Your task to perform on an android device: Open CNN.com Image 0: 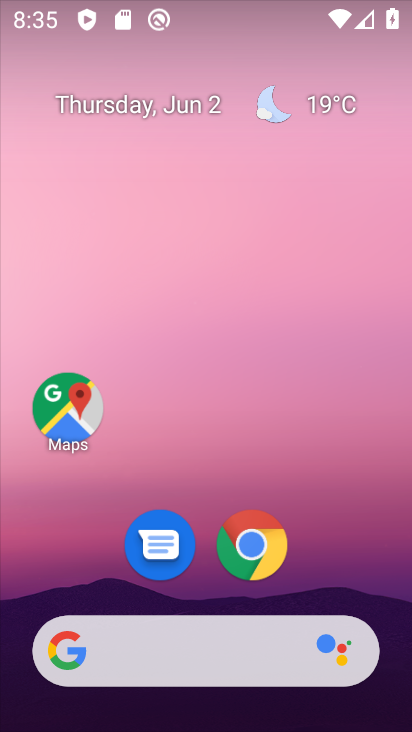
Step 0: click (255, 530)
Your task to perform on an android device: Open CNN.com Image 1: 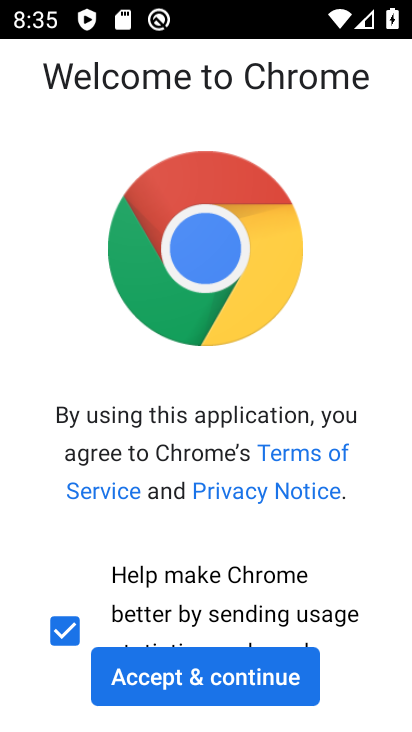
Step 1: click (259, 663)
Your task to perform on an android device: Open CNN.com Image 2: 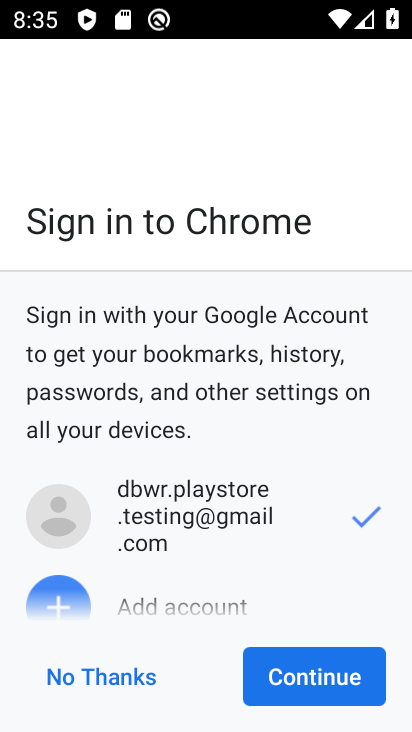
Step 2: click (284, 710)
Your task to perform on an android device: Open CNN.com Image 3: 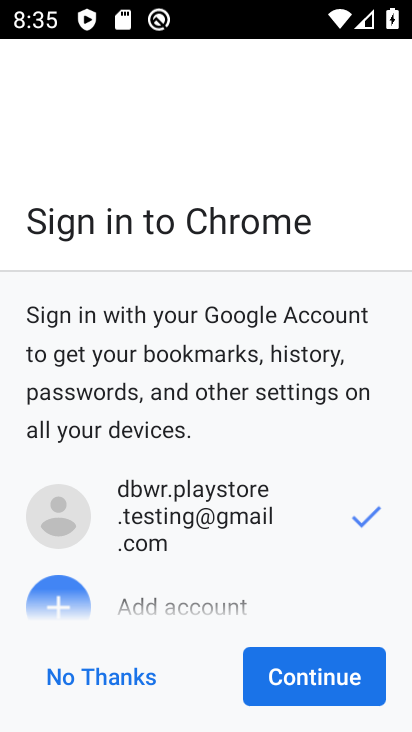
Step 3: click (304, 688)
Your task to perform on an android device: Open CNN.com Image 4: 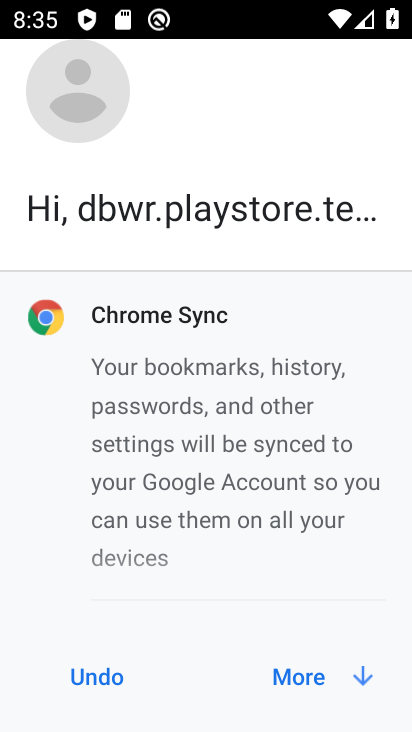
Step 4: click (304, 676)
Your task to perform on an android device: Open CNN.com Image 5: 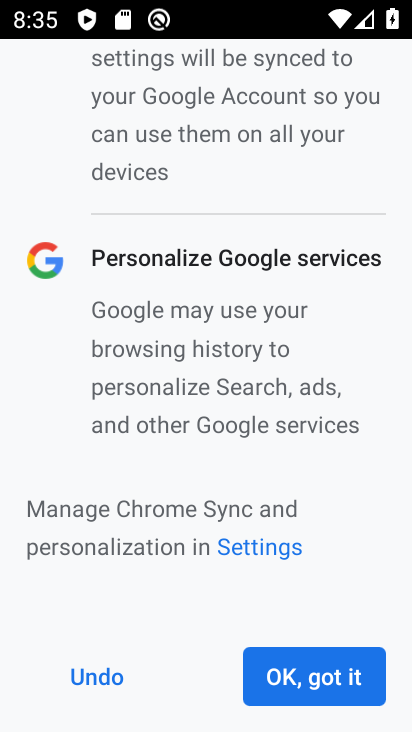
Step 5: click (283, 684)
Your task to perform on an android device: Open CNN.com Image 6: 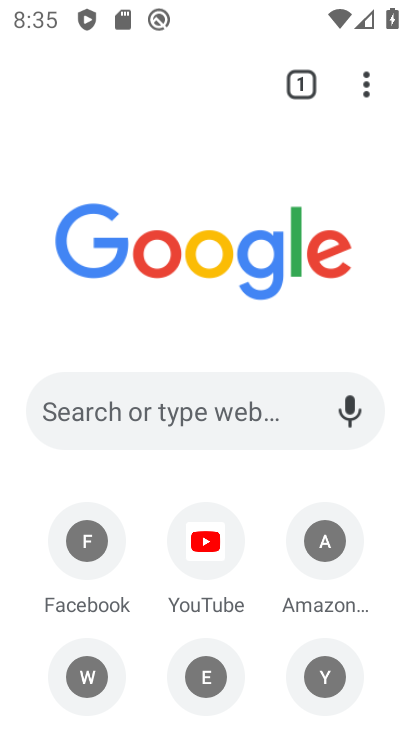
Step 6: click (366, 84)
Your task to perform on an android device: Open CNN.com Image 7: 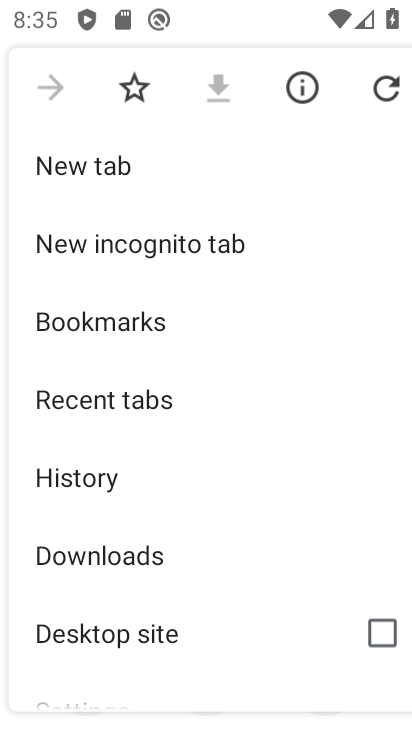
Step 7: click (47, 89)
Your task to perform on an android device: Open CNN.com Image 8: 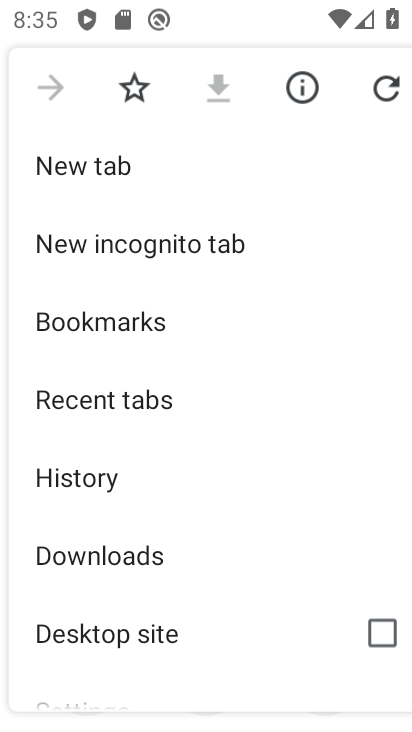
Step 8: press back button
Your task to perform on an android device: Open CNN.com Image 9: 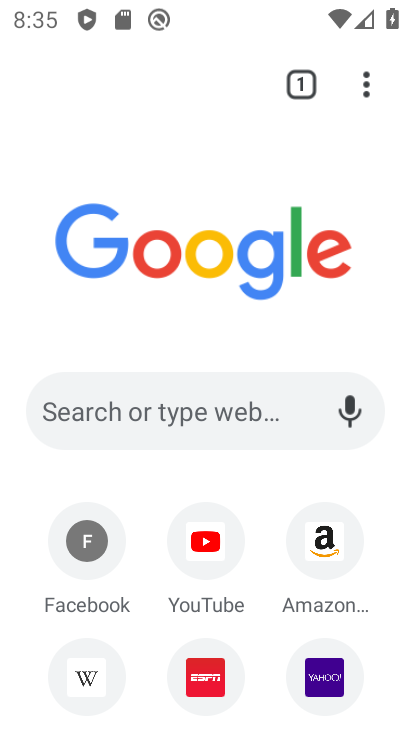
Step 9: click (134, 403)
Your task to perform on an android device: Open CNN.com Image 10: 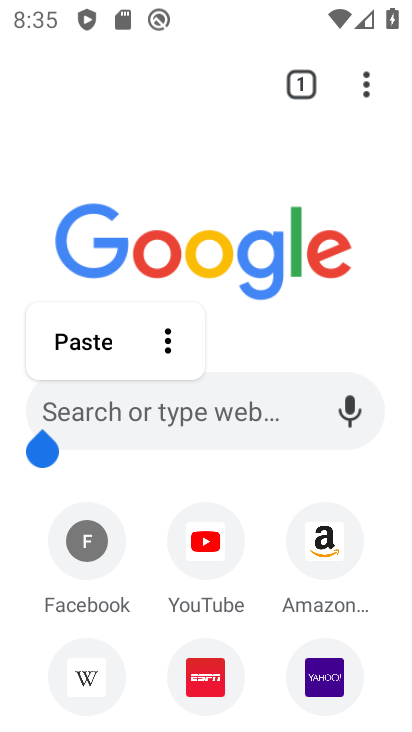
Step 10: type "CNN.com"
Your task to perform on an android device: Open CNN.com Image 11: 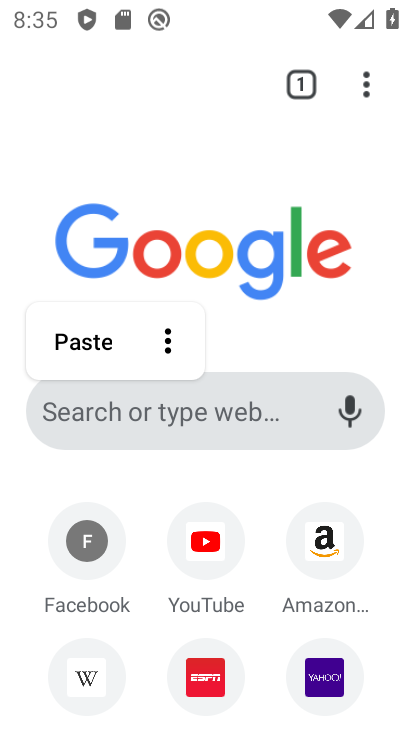
Step 11: click (72, 414)
Your task to perform on an android device: Open CNN.com Image 12: 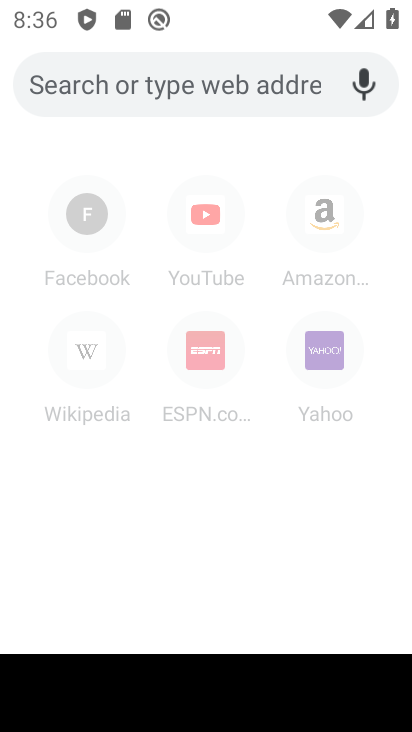
Step 12: type "CNN.com"
Your task to perform on an android device: Open CNN.com Image 13: 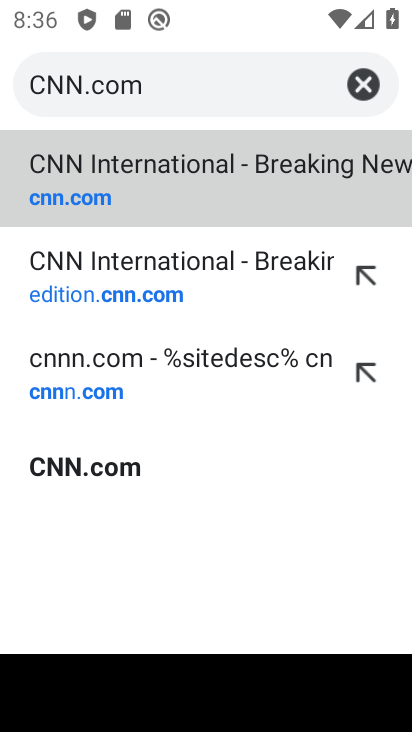
Step 13: click (70, 462)
Your task to perform on an android device: Open CNN.com Image 14: 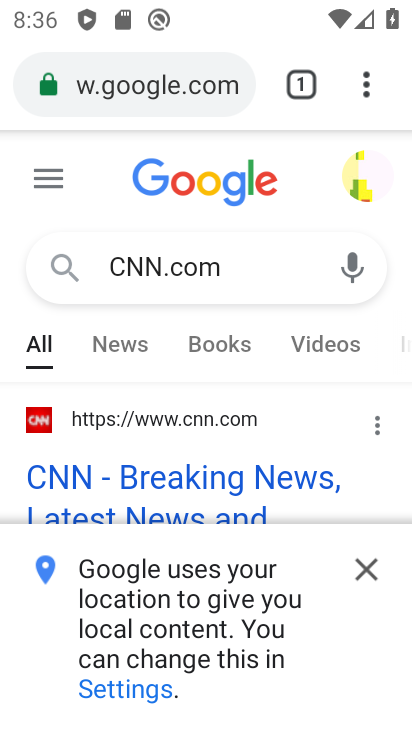
Step 14: task complete